Your task to perform on an android device: Go to accessibility settings Image 0: 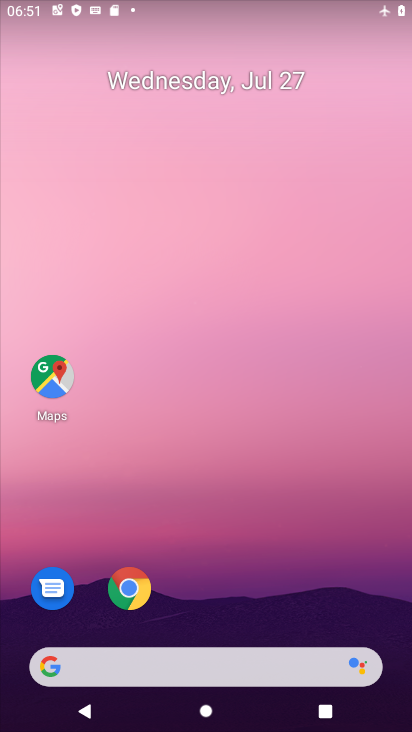
Step 0: drag from (253, 564) to (298, 66)
Your task to perform on an android device: Go to accessibility settings Image 1: 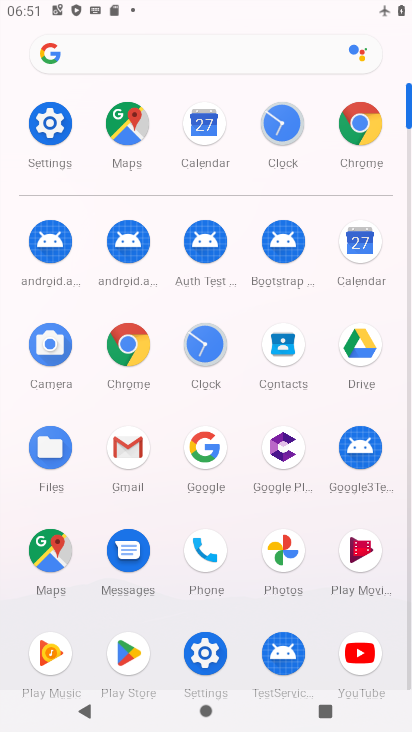
Step 1: click (46, 115)
Your task to perform on an android device: Go to accessibility settings Image 2: 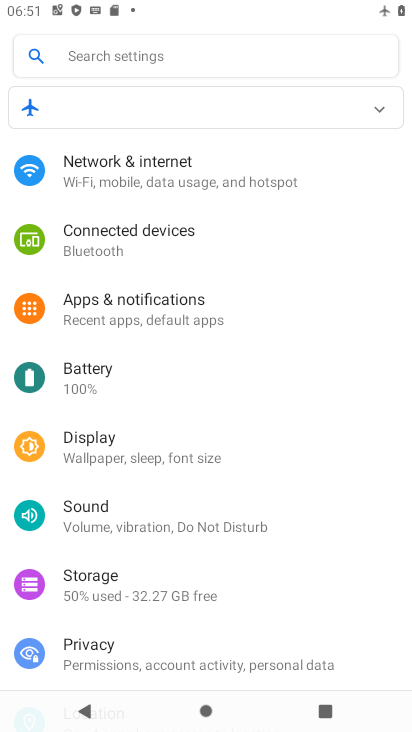
Step 2: drag from (117, 653) to (246, 130)
Your task to perform on an android device: Go to accessibility settings Image 3: 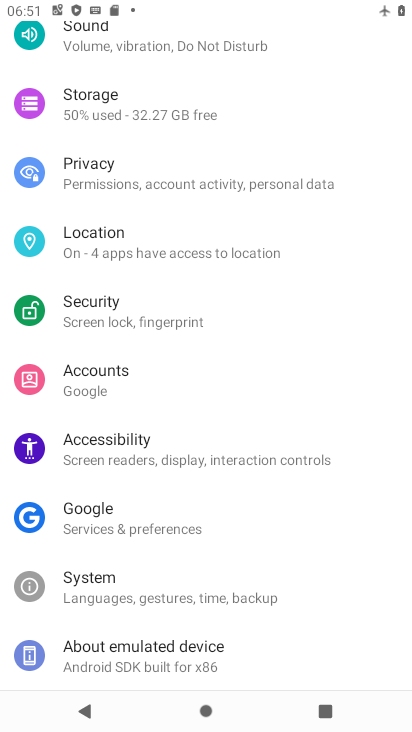
Step 3: click (209, 461)
Your task to perform on an android device: Go to accessibility settings Image 4: 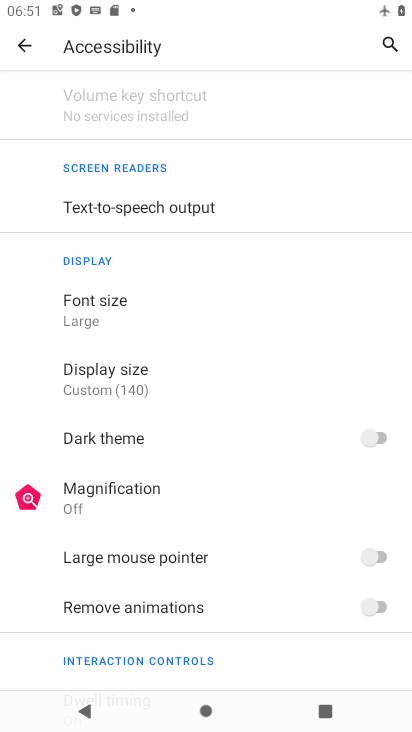
Step 4: task complete